Your task to perform on an android device: Go to sound settings Image 0: 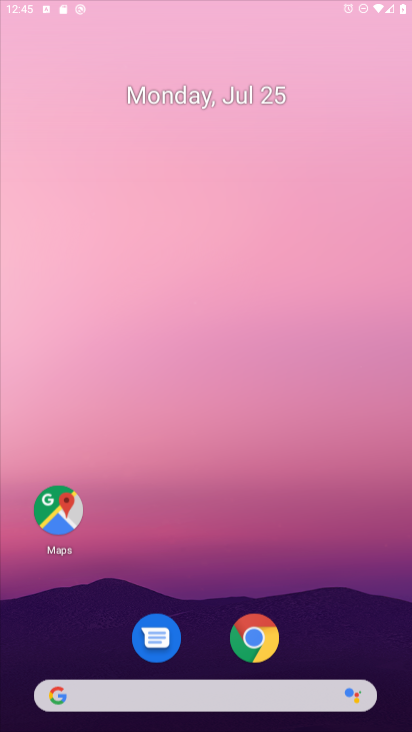
Step 0: drag from (166, 653) to (261, 574)
Your task to perform on an android device: Go to sound settings Image 1: 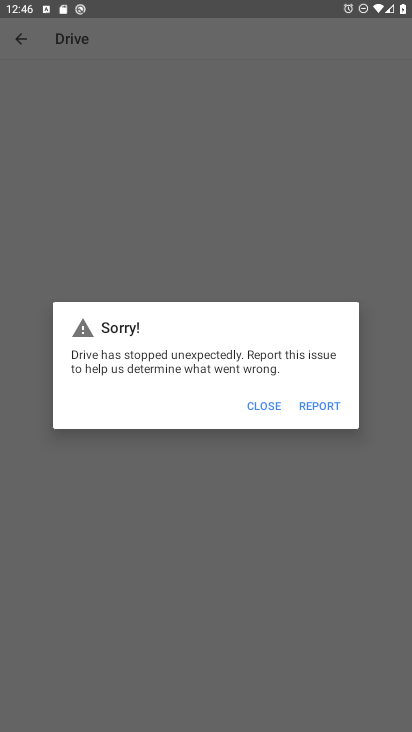
Step 1: press home button
Your task to perform on an android device: Go to sound settings Image 2: 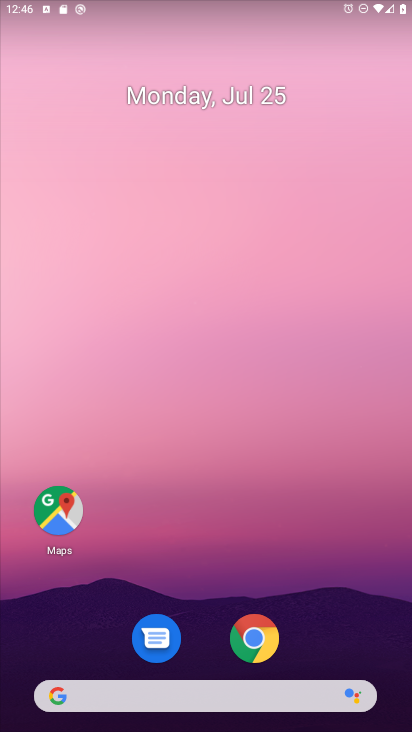
Step 2: drag from (198, 648) to (198, 184)
Your task to perform on an android device: Go to sound settings Image 3: 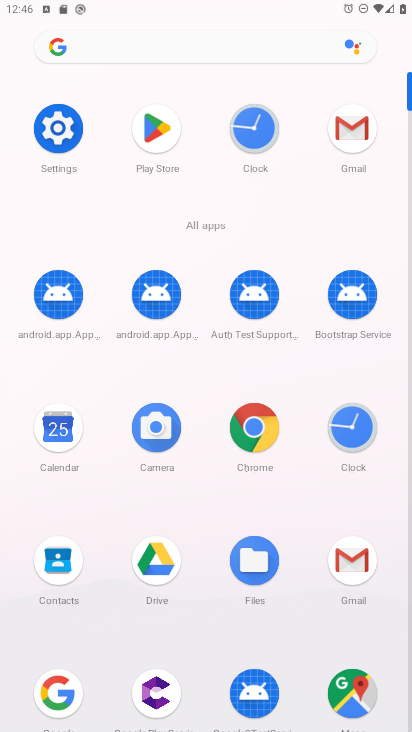
Step 3: click (65, 134)
Your task to perform on an android device: Go to sound settings Image 4: 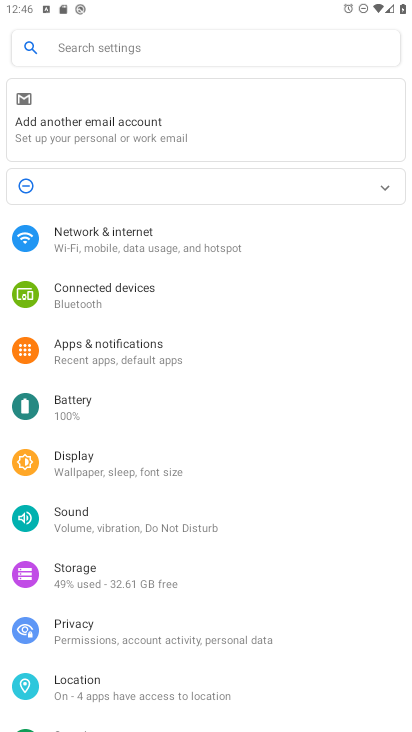
Step 4: click (129, 524)
Your task to perform on an android device: Go to sound settings Image 5: 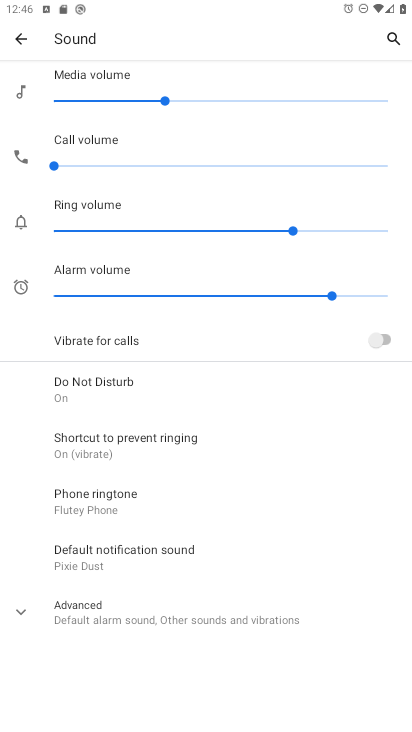
Step 5: task complete